Your task to perform on an android device: Open Chrome and go to the settings page Image 0: 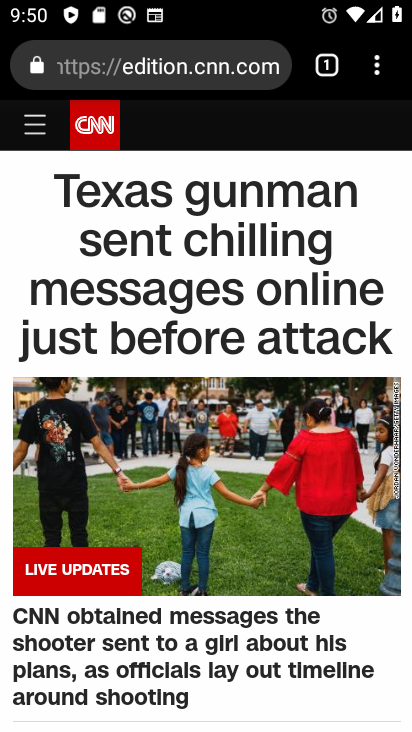
Step 0: press home button
Your task to perform on an android device: Open Chrome and go to the settings page Image 1: 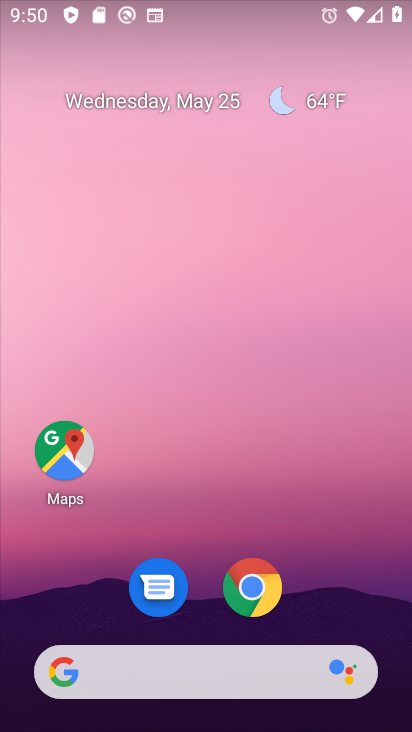
Step 1: click (254, 606)
Your task to perform on an android device: Open Chrome and go to the settings page Image 2: 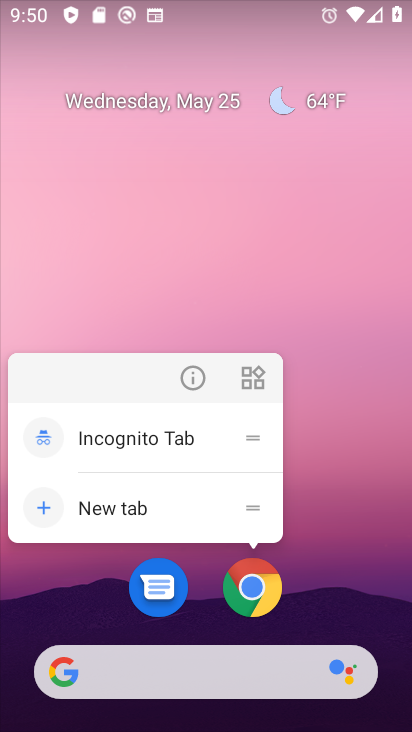
Step 2: click (257, 591)
Your task to perform on an android device: Open Chrome and go to the settings page Image 3: 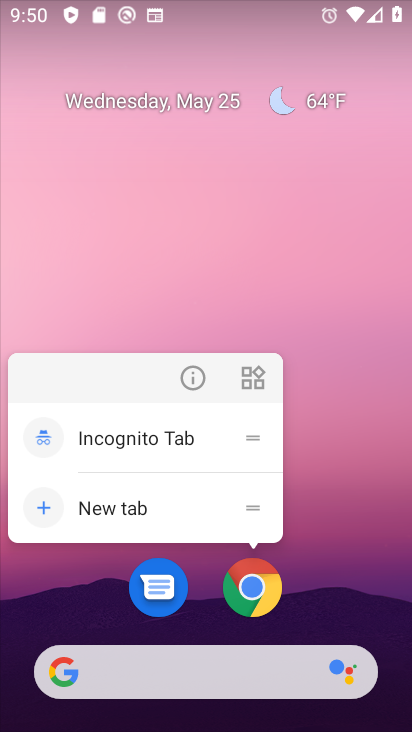
Step 3: click (257, 591)
Your task to perform on an android device: Open Chrome and go to the settings page Image 4: 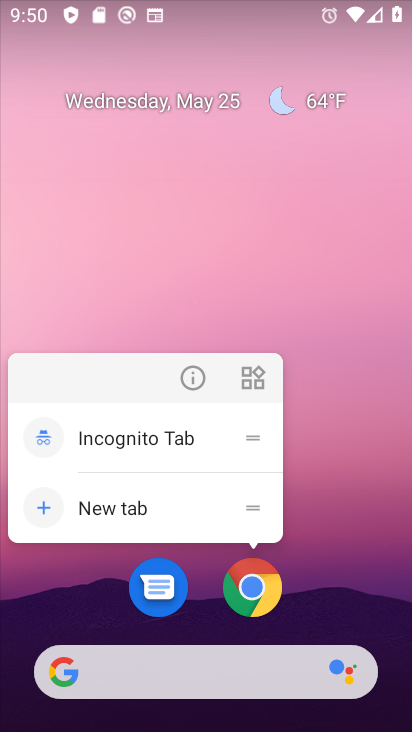
Step 4: click (255, 591)
Your task to perform on an android device: Open Chrome and go to the settings page Image 5: 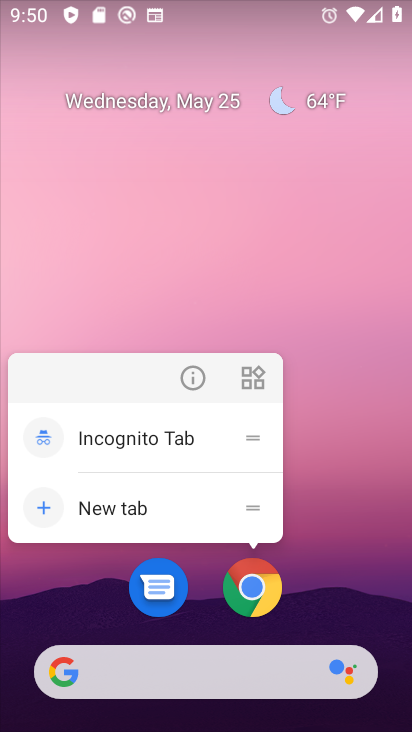
Step 5: click (246, 591)
Your task to perform on an android device: Open Chrome and go to the settings page Image 6: 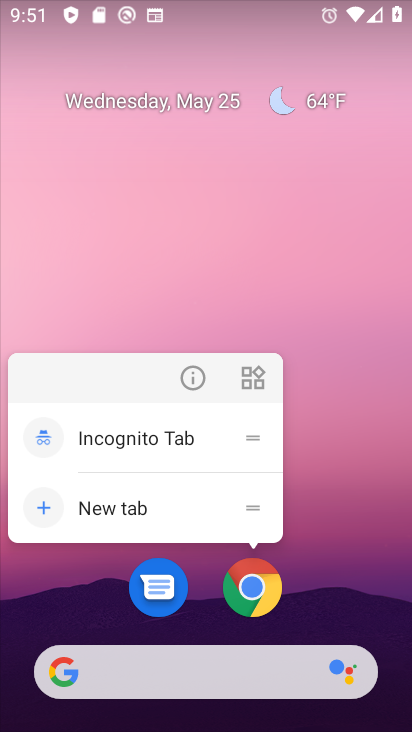
Step 6: click (258, 587)
Your task to perform on an android device: Open Chrome and go to the settings page Image 7: 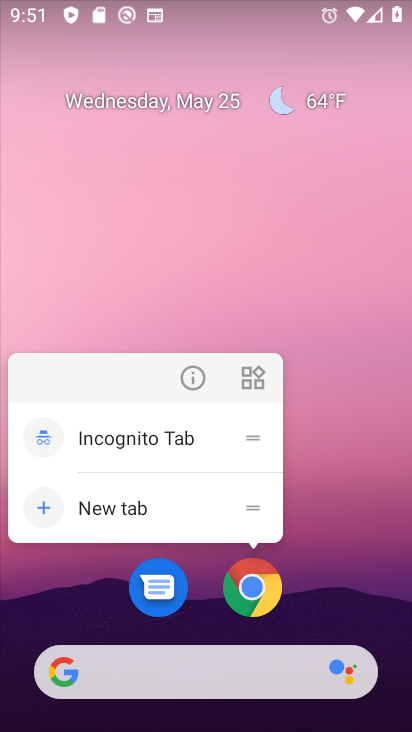
Step 7: click (259, 581)
Your task to perform on an android device: Open Chrome and go to the settings page Image 8: 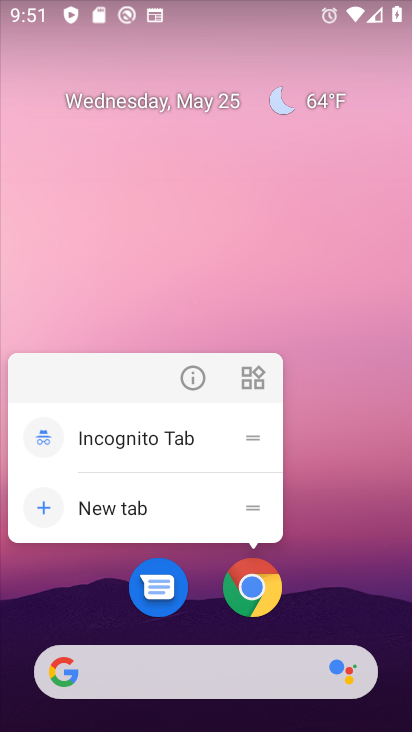
Step 8: click (251, 574)
Your task to perform on an android device: Open Chrome and go to the settings page Image 9: 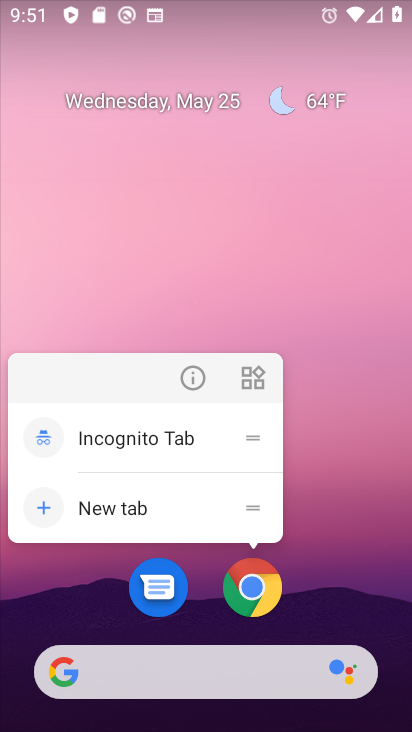
Step 9: click (250, 583)
Your task to perform on an android device: Open Chrome and go to the settings page Image 10: 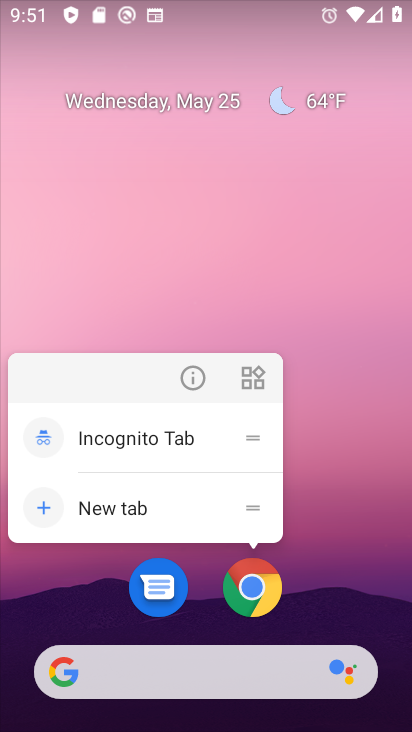
Step 10: click (264, 603)
Your task to perform on an android device: Open Chrome and go to the settings page Image 11: 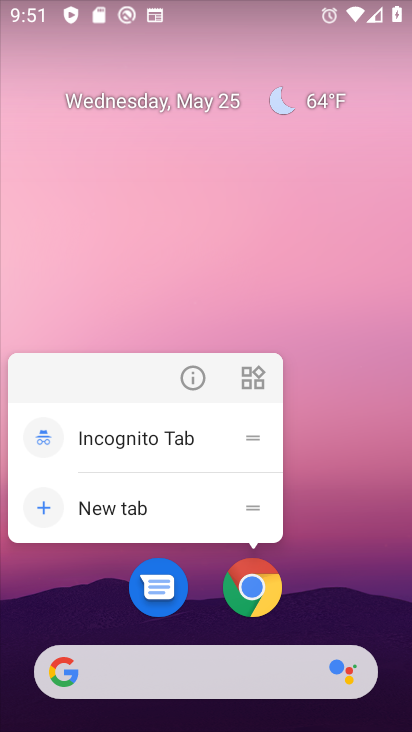
Step 11: click (261, 599)
Your task to perform on an android device: Open Chrome and go to the settings page Image 12: 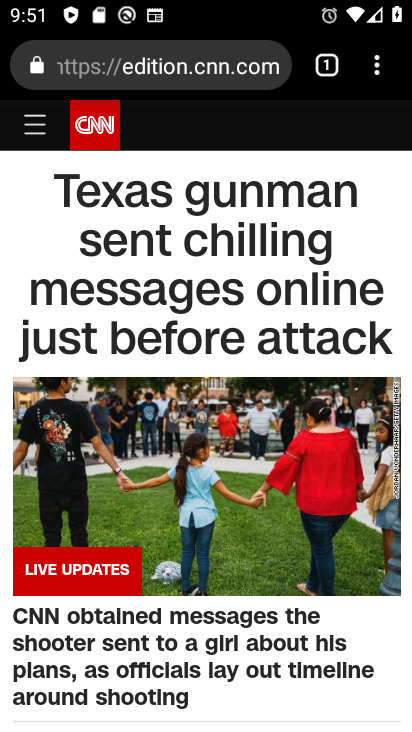
Step 12: task complete